Your task to perform on an android device: open chrome and create a bookmark for the current page Image 0: 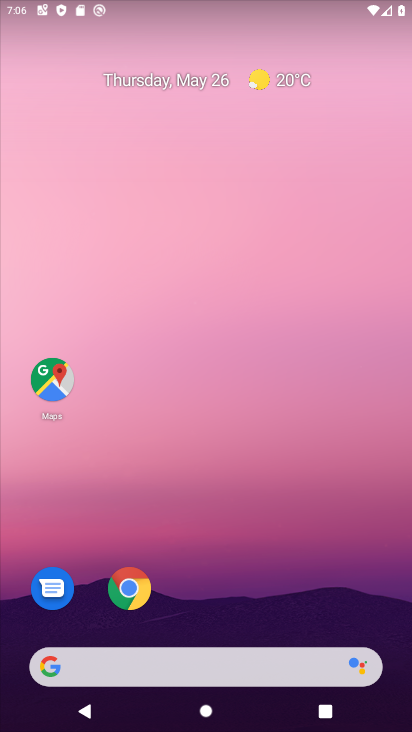
Step 0: drag from (374, 609) to (316, 65)
Your task to perform on an android device: open chrome and create a bookmark for the current page Image 1: 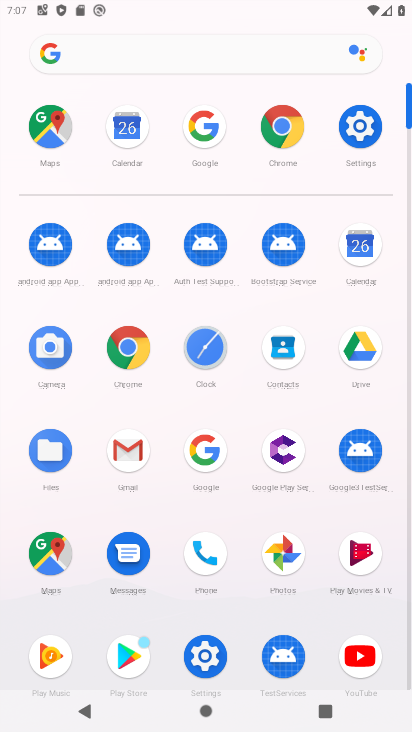
Step 1: click (138, 361)
Your task to perform on an android device: open chrome and create a bookmark for the current page Image 2: 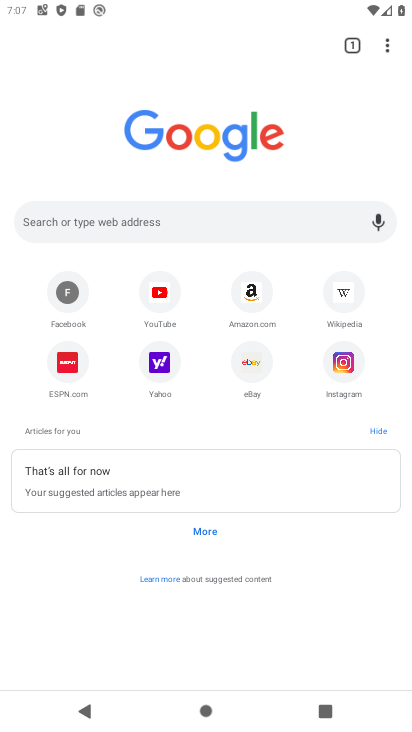
Step 2: click (390, 34)
Your task to perform on an android device: open chrome and create a bookmark for the current page Image 3: 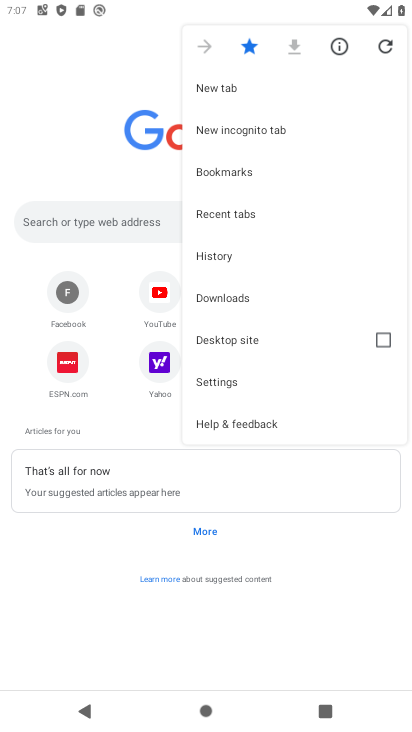
Step 3: task complete